Your task to perform on an android device: Open Google Maps Image 0: 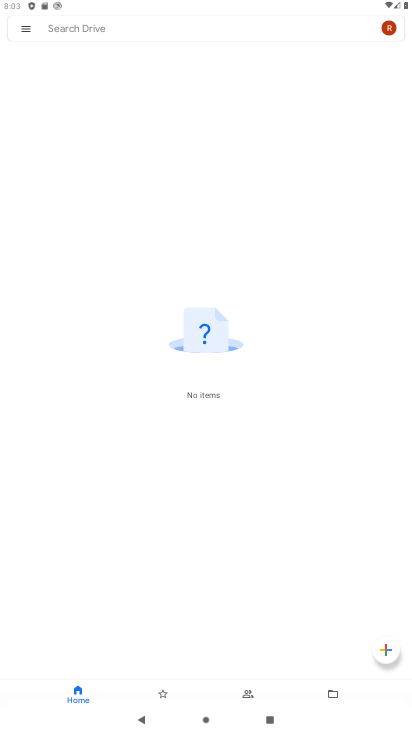
Step 0: press home button
Your task to perform on an android device: Open Google Maps Image 1: 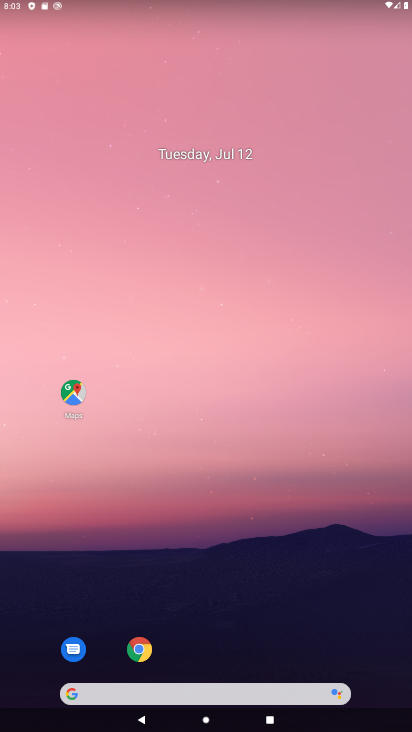
Step 1: click (75, 392)
Your task to perform on an android device: Open Google Maps Image 2: 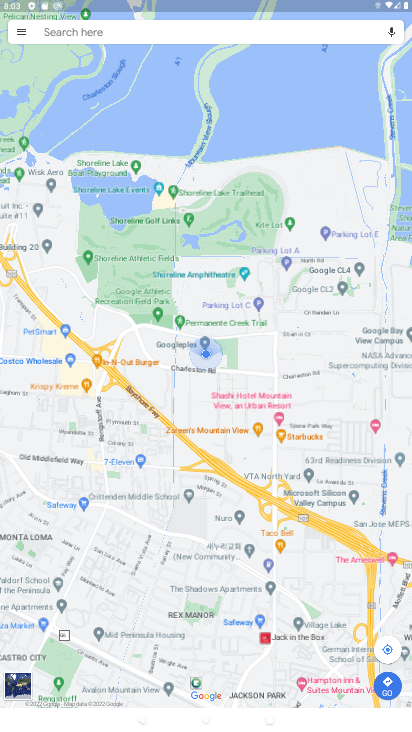
Step 2: task complete